Your task to perform on an android device: Open Amazon Image 0: 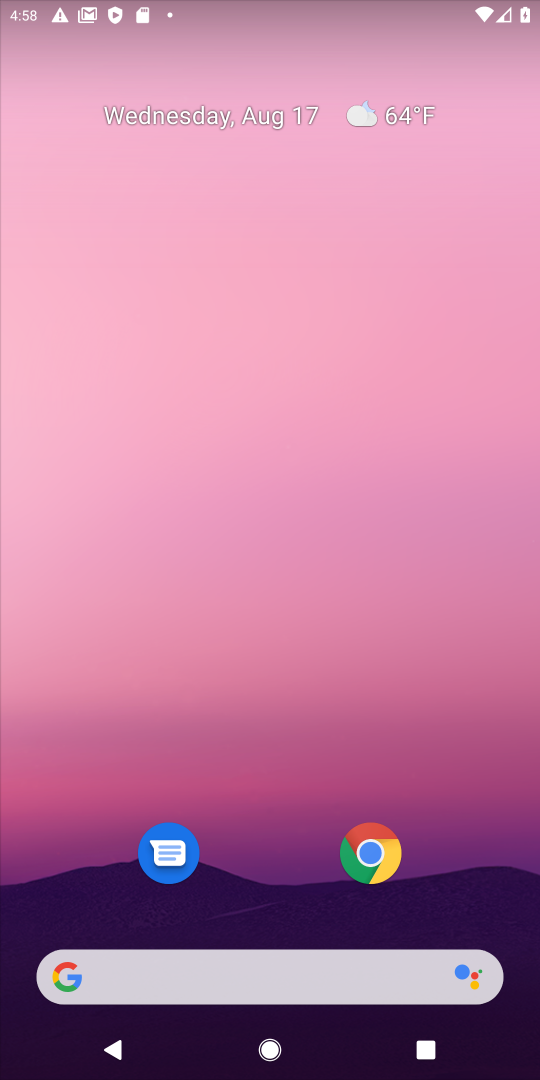
Step 0: click (372, 843)
Your task to perform on an android device: Open Amazon Image 1: 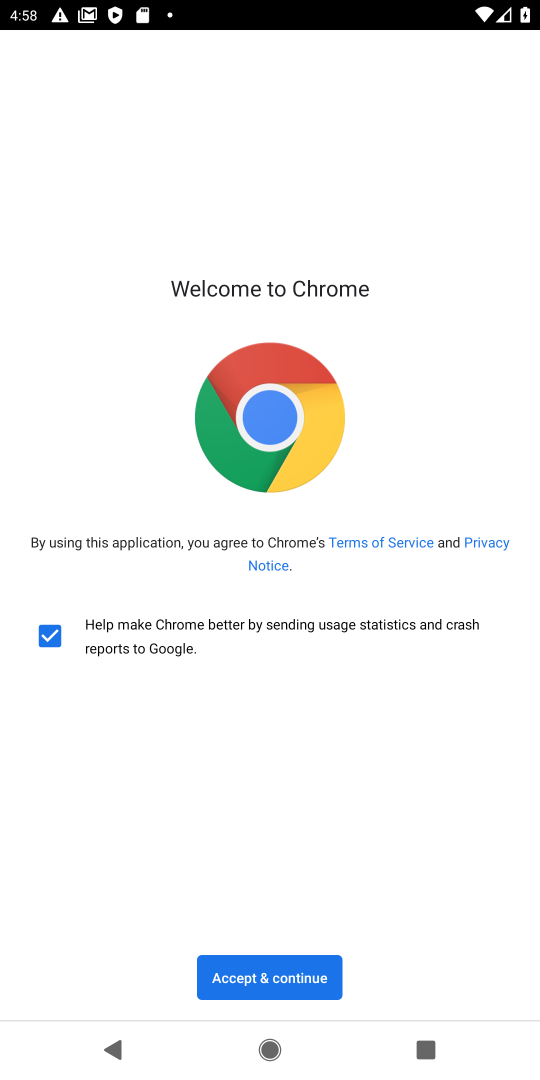
Step 1: click (313, 988)
Your task to perform on an android device: Open Amazon Image 2: 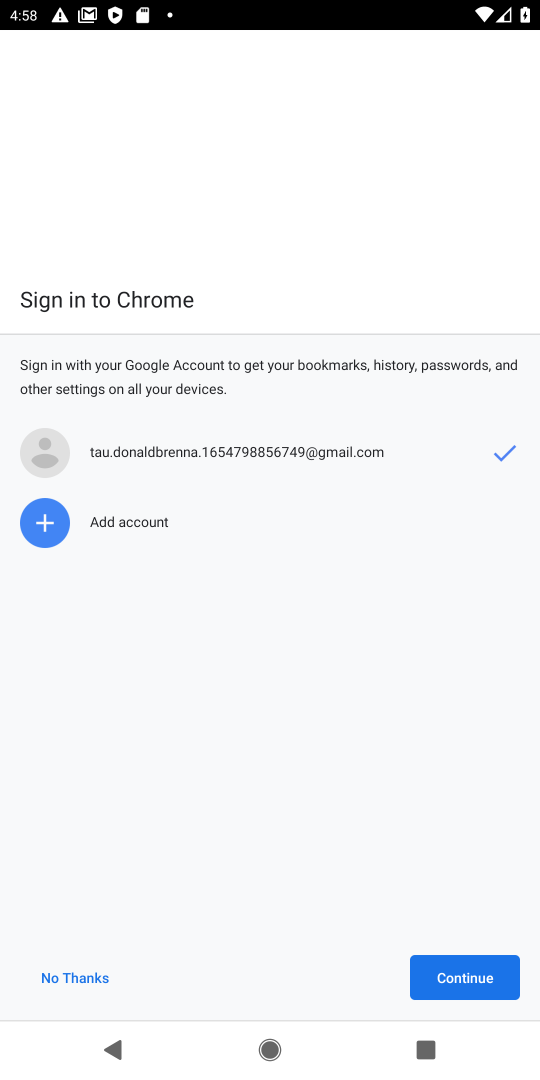
Step 2: click (510, 963)
Your task to perform on an android device: Open Amazon Image 3: 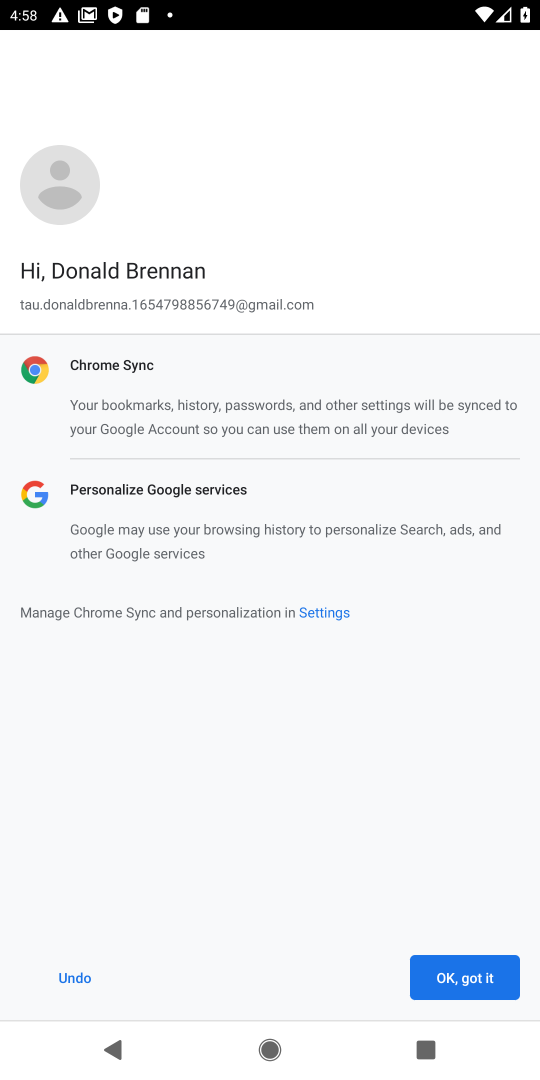
Step 3: click (503, 972)
Your task to perform on an android device: Open Amazon Image 4: 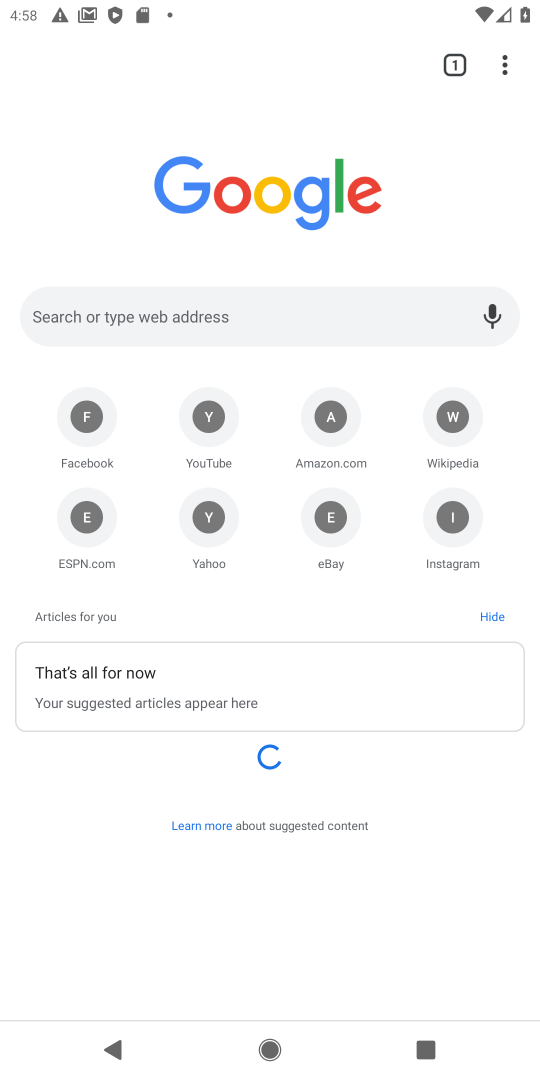
Step 4: click (328, 406)
Your task to perform on an android device: Open Amazon Image 5: 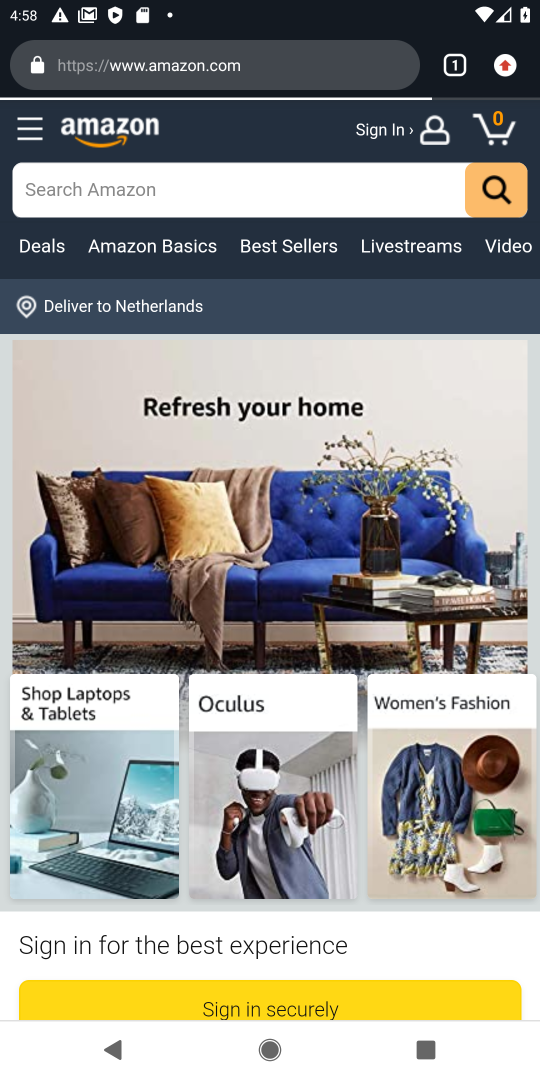
Step 5: task complete